Your task to perform on an android device: Do I have any events today? Image 0: 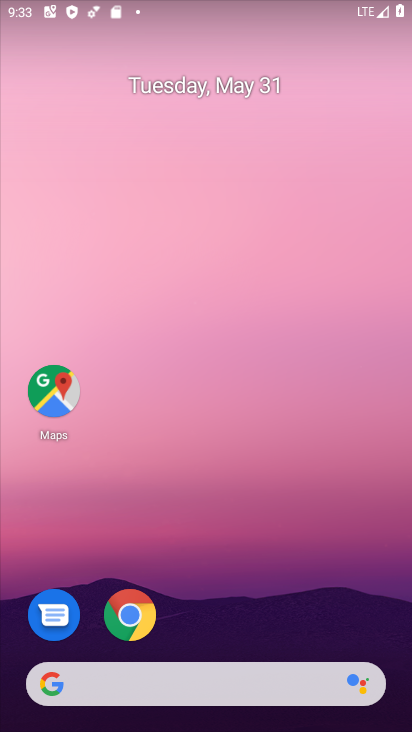
Step 0: drag from (246, 516) to (224, 112)
Your task to perform on an android device: Do I have any events today? Image 1: 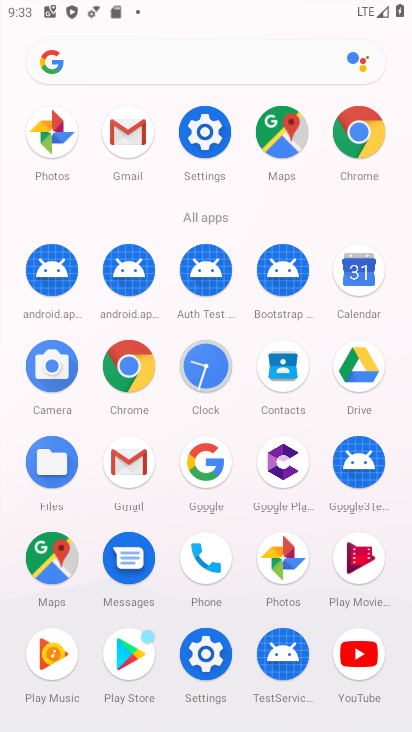
Step 1: click (365, 289)
Your task to perform on an android device: Do I have any events today? Image 2: 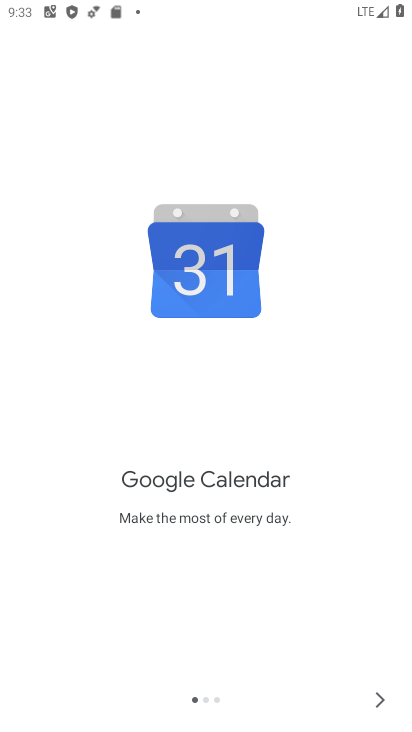
Step 2: click (392, 709)
Your task to perform on an android device: Do I have any events today? Image 3: 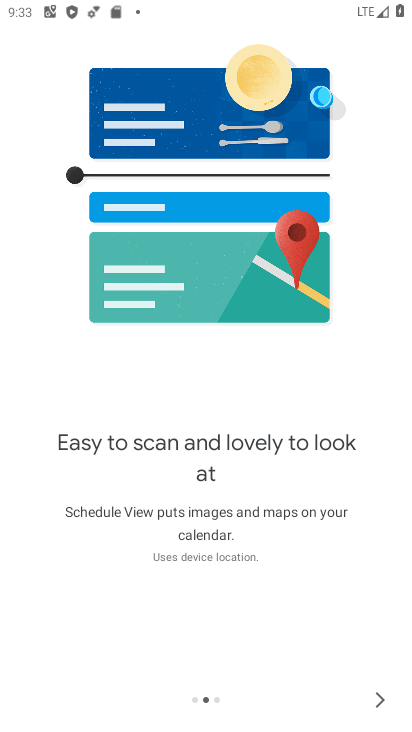
Step 3: click (392, 709)
Your task to perform on an android device: Do I have any events today? Image 4: 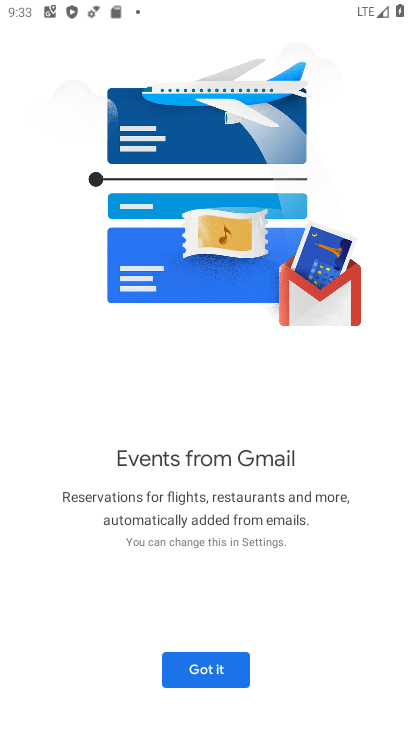
Step 4: click (213, 674)
Your task to perform on an android device: Do I have any events today? Image 5: 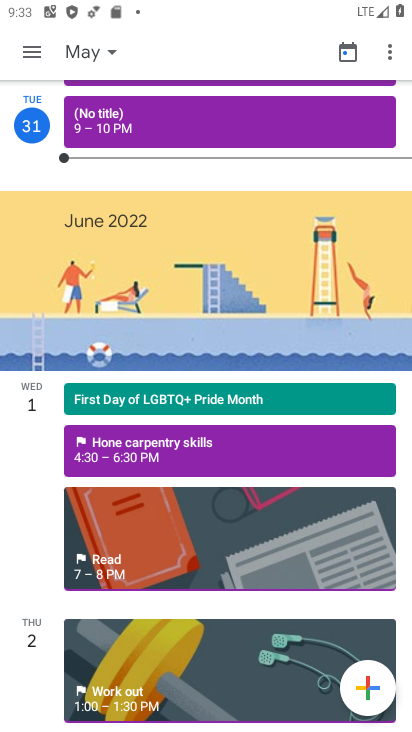
Step 5: click (82, 59)
Your task to perform on an android device: Do I have any events today? Image 6: 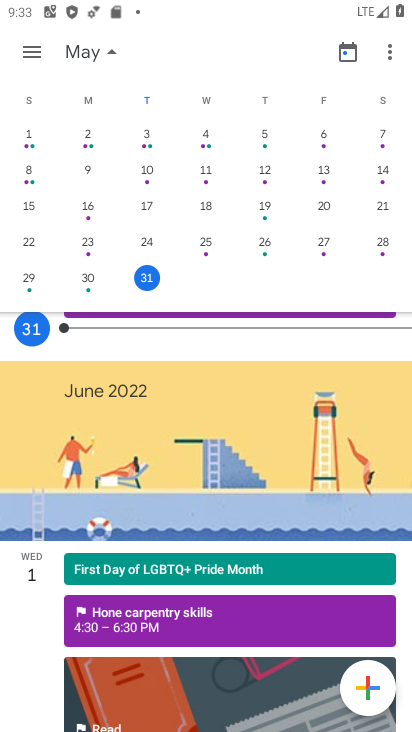
Step 6: task complete